Your task to perform on an android device: Search for "logitech g903" on costco, select the first entry, add it to the cart, then select checkout. Image 0: 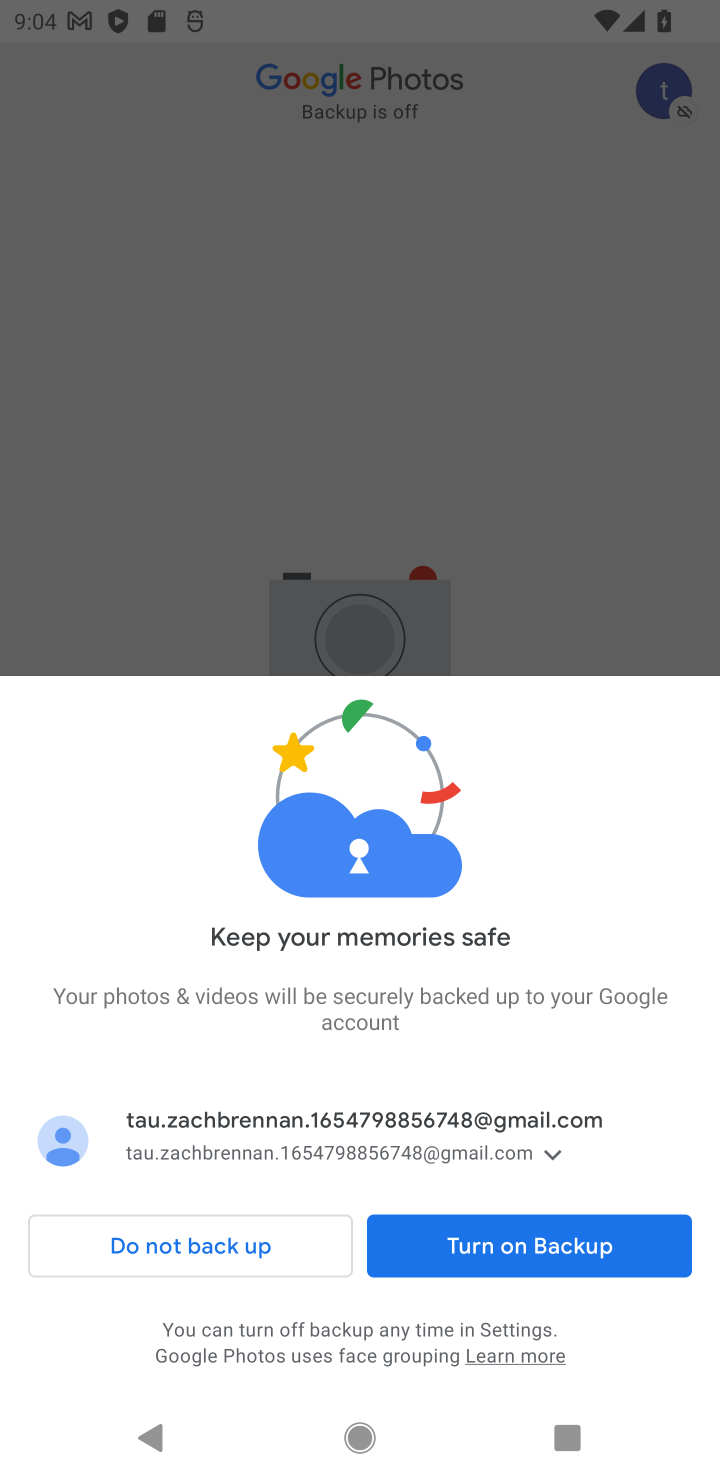
Step 0: press home button
Your task to perform on an android device: Search for "logitech g903" on costco, select the first entry, add it to the cart, then select checkout. Image 1: 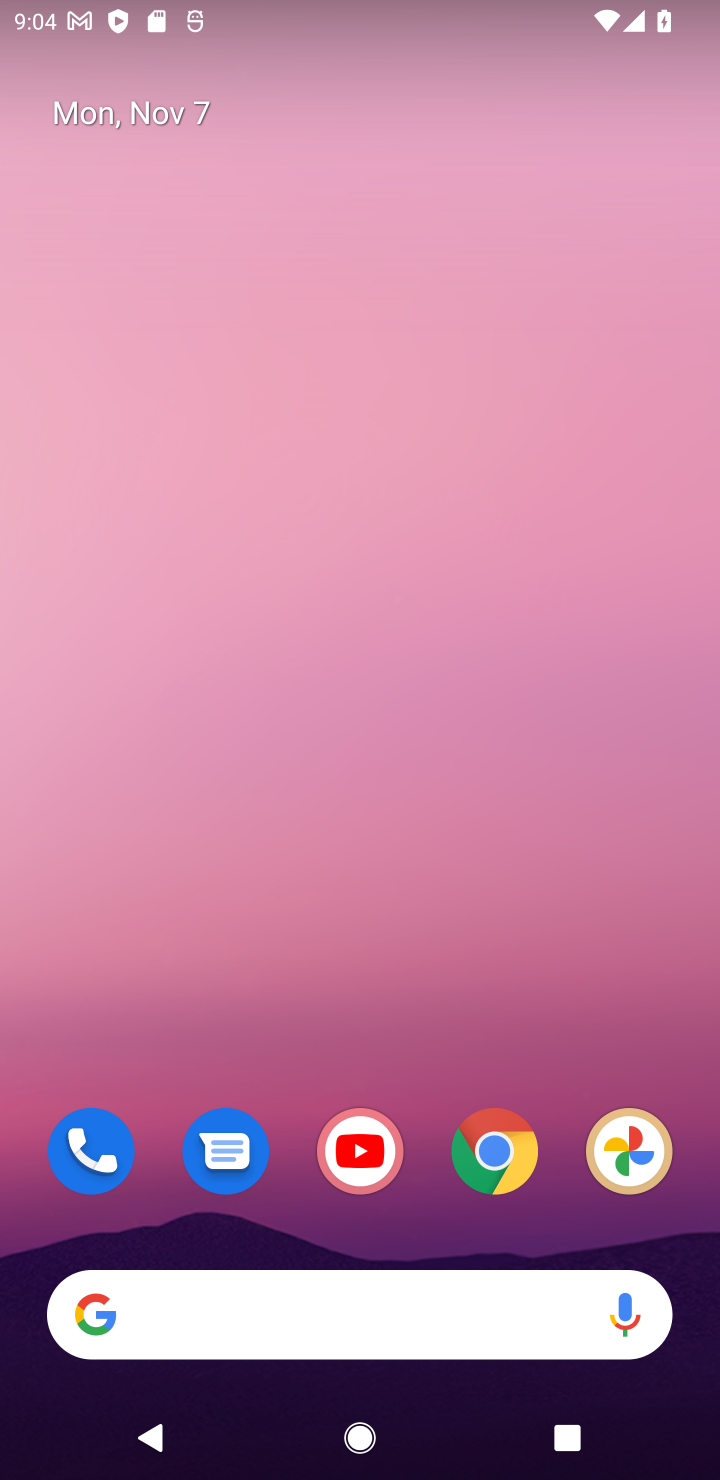
Step 1: click (494, 1149)
Your task to perform on an android device: Search for "logitech g903" on costco, select the first entry, add it to the cart, then select checkout. Image 2: 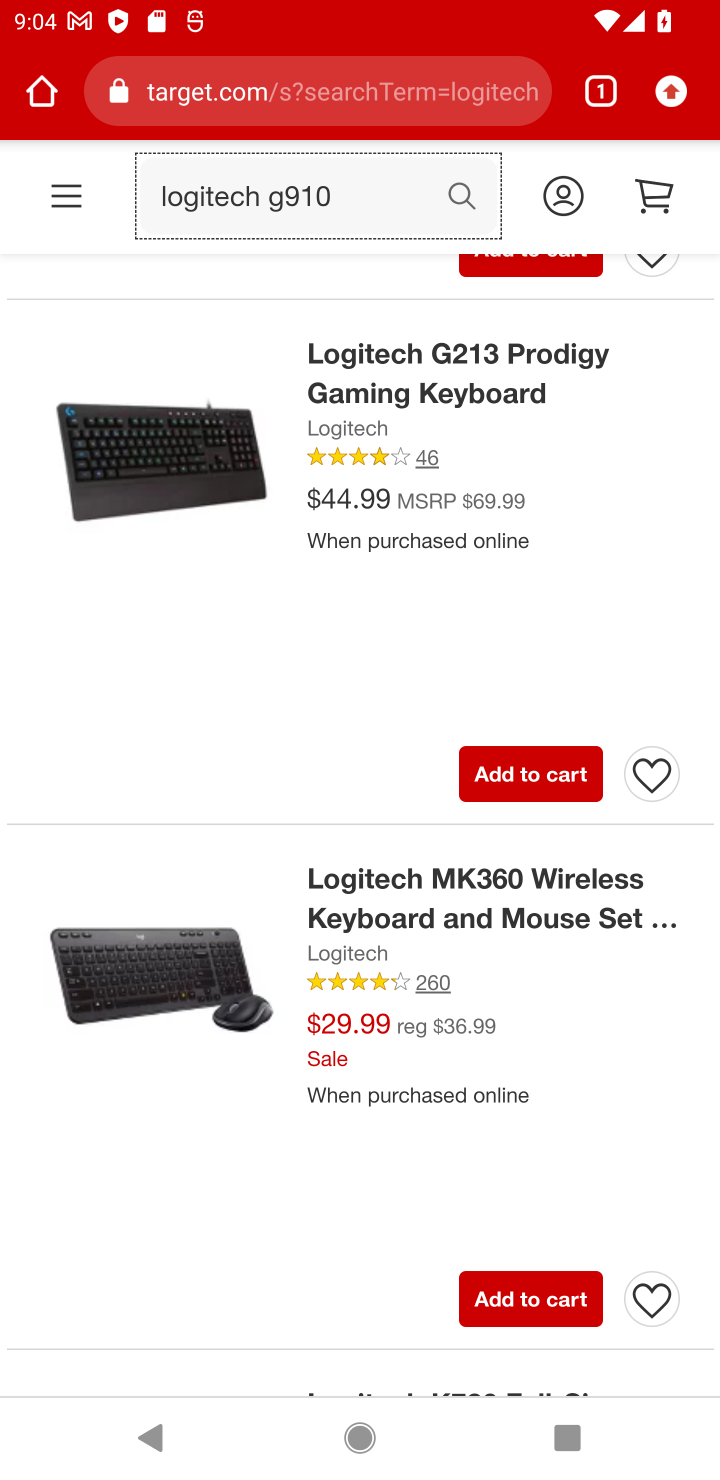
Step 2: click (319, 82)
Your task to perform on an android device: Search for "logitech g903" on costco, select the first entry, add it to the cart, then select checkout. Image 3: 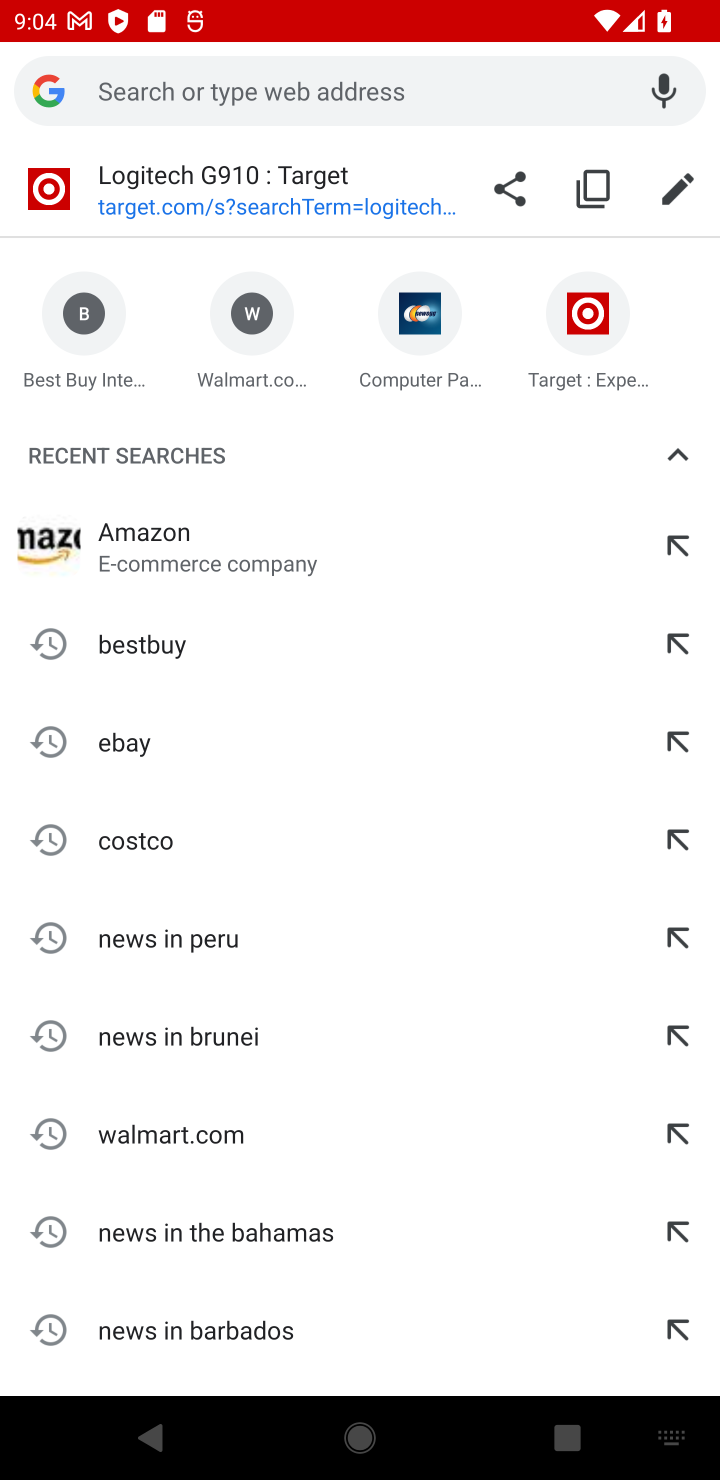
Step 3: click (128, 833)
Your task to perform on an android device: Search for "logitech g903" on costco, select the first entry, add it to the cart, then select checkout. Image 4: 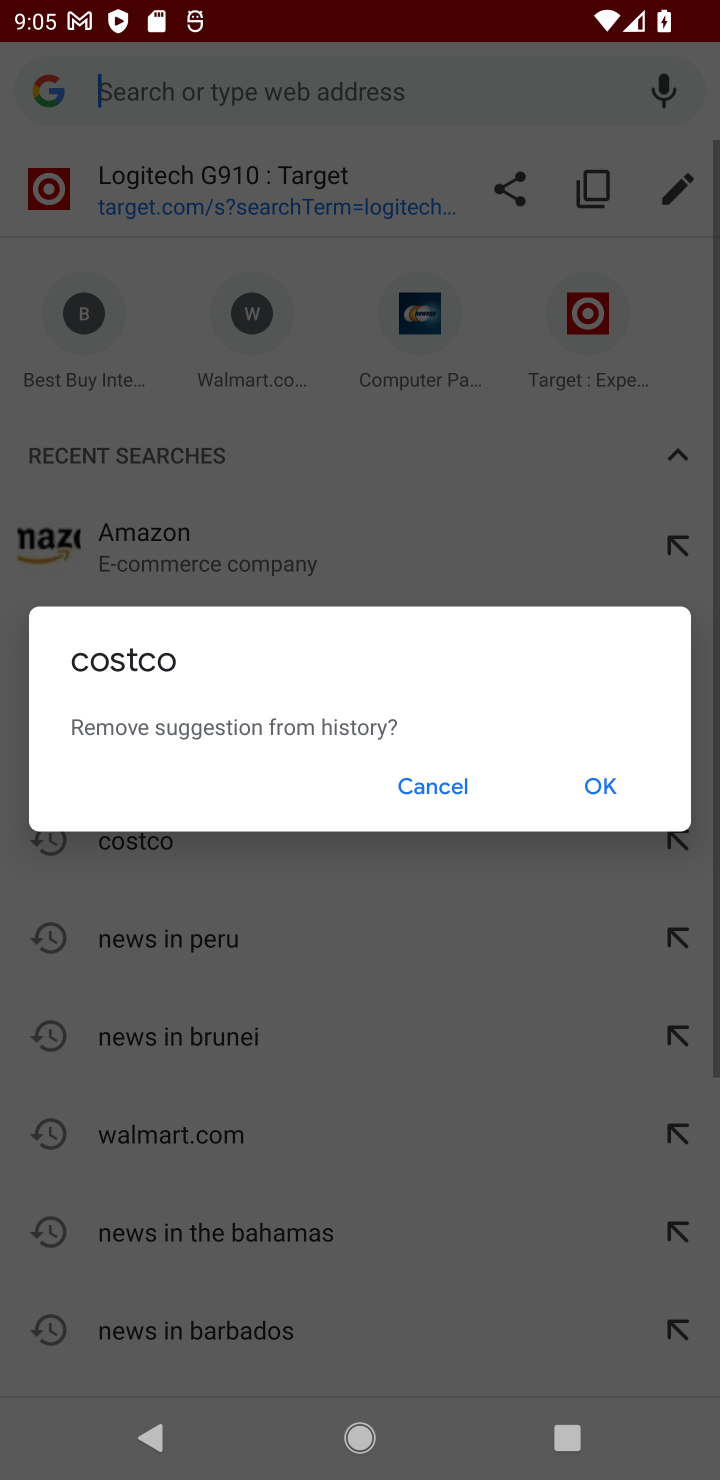
Step 4: click (427, 780)
Your task to perform on an android device: Search for "logitech g903" on costco, select the first entry, add it to the cart, then select checkout. Image 5: 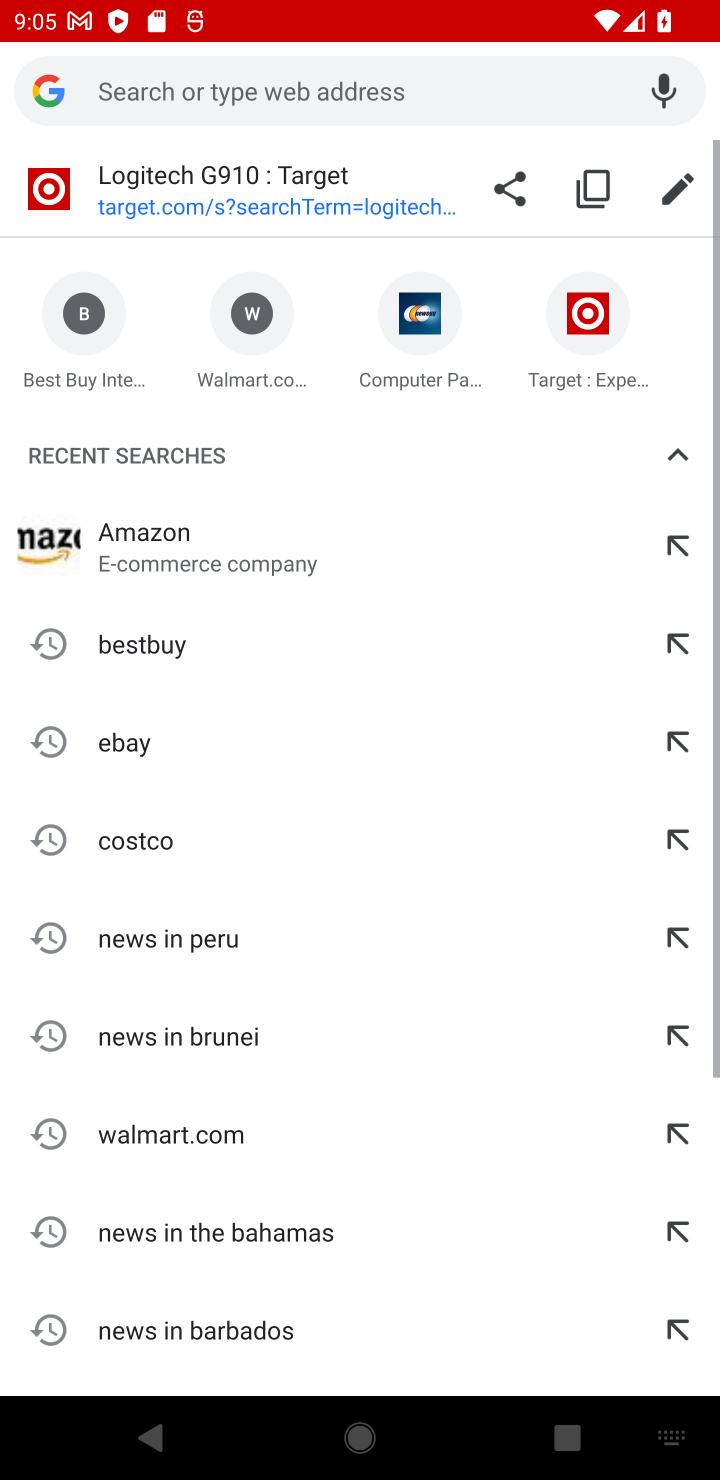
Step 5: click (123, 843)
Your task to perform on an android device: Search for "logitech g903" on costco, select the first entry, add it to the cart, then select checkout. Image 6: 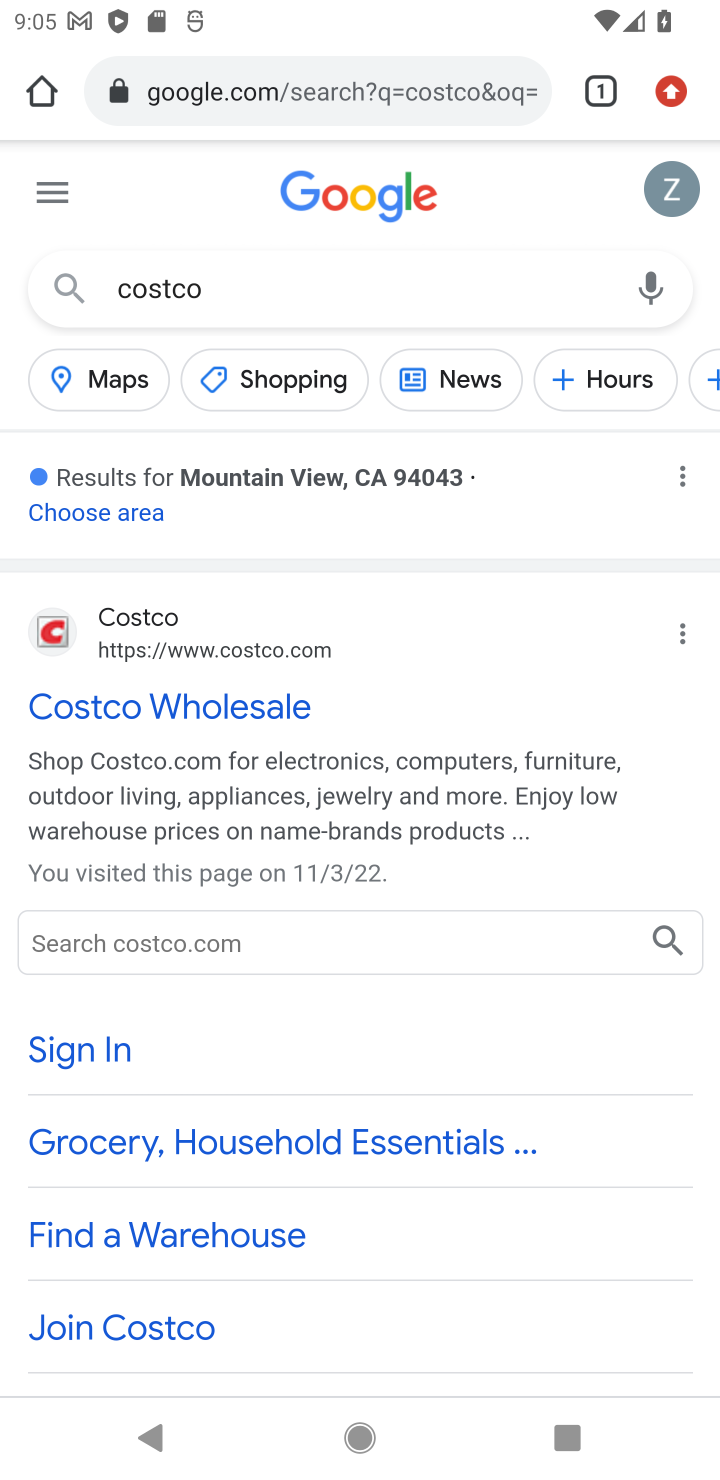
Step 6: click (236, 705)
Your task to perform on an android device: Search for "logitech g903" on costco, select the first entry, add it to the cart, then select checkout. Image 7: 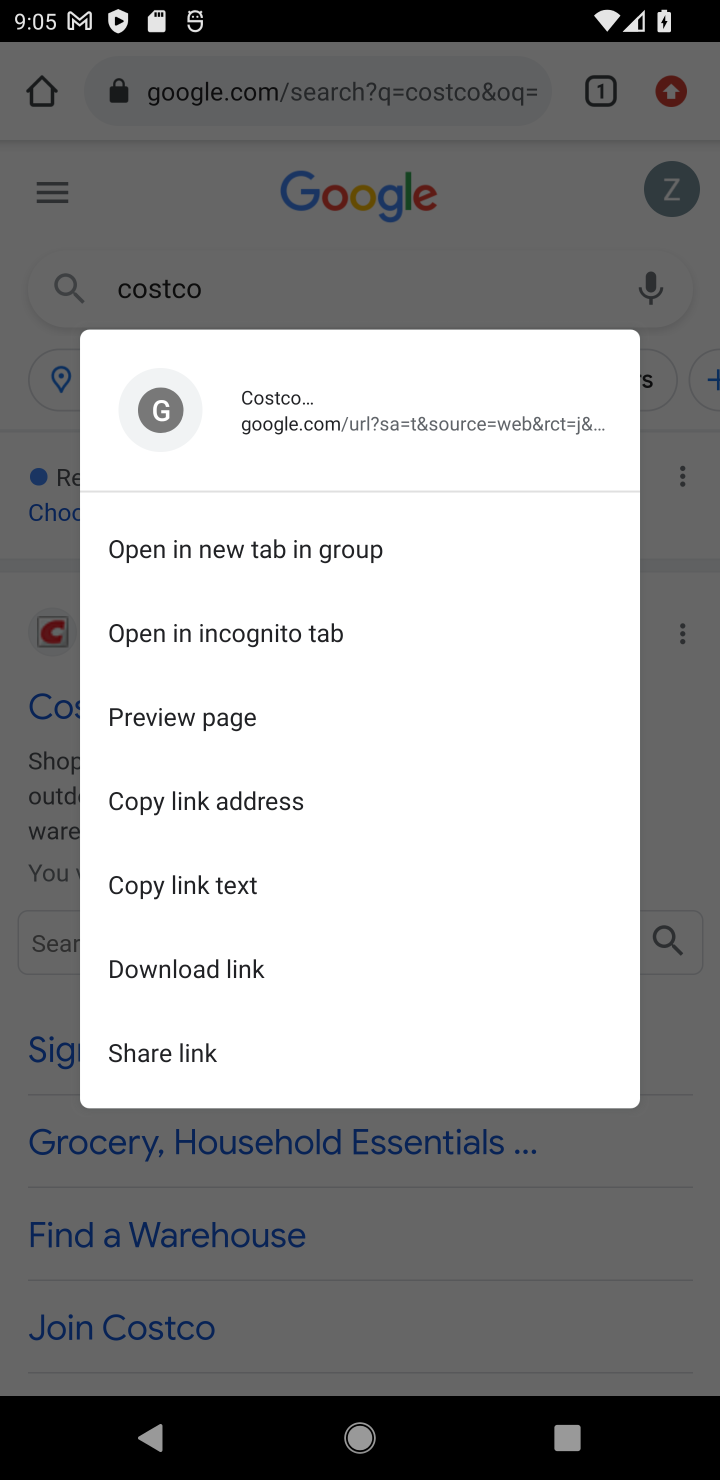
Step 7: click (535, 1255)
Your task to perform on an android device: Search for "logitech g903" on costco, select the first entry, add it to the cart, then select checkout. Image 8: 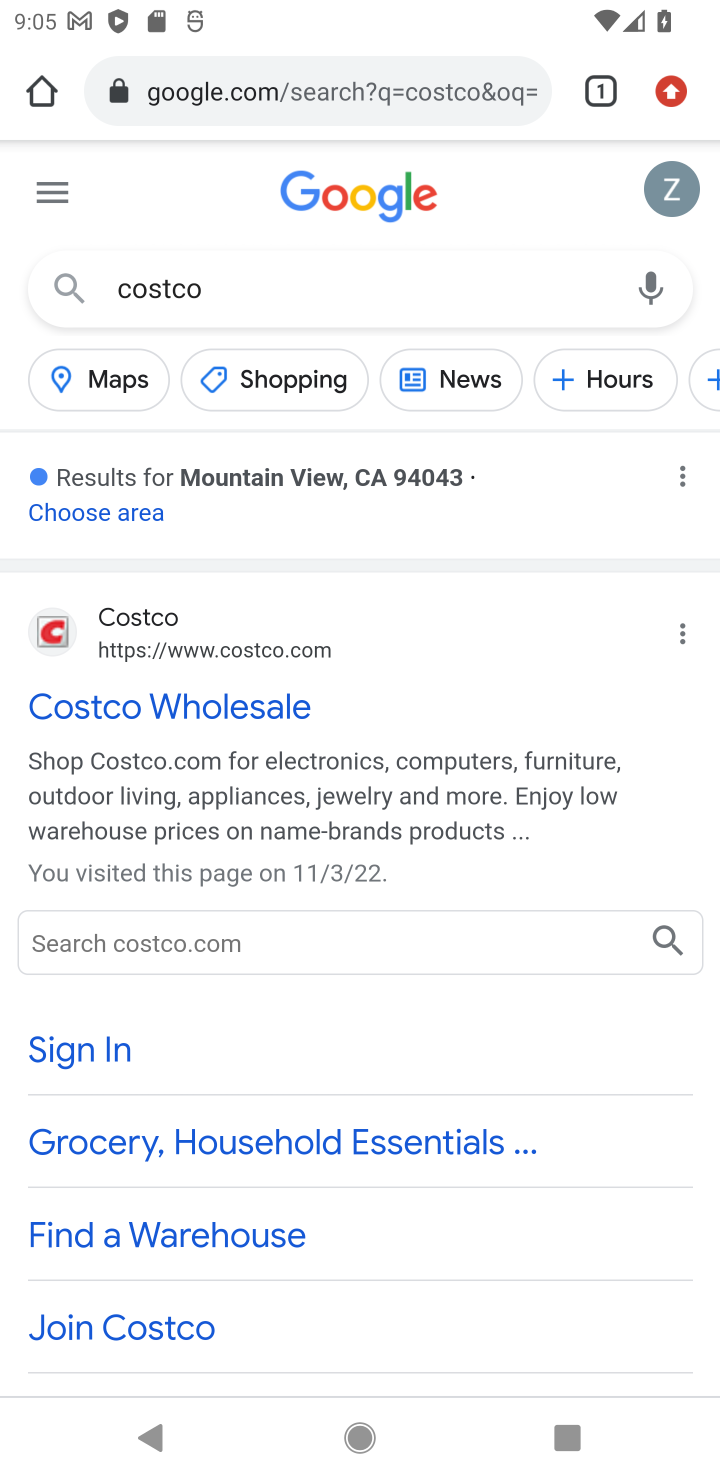
Step 8: click (104, 710)
Your task to perform on an android device: Search for "logitech g903" on costco, select the first entry, add it to the cart, then select checkout. Image 9: 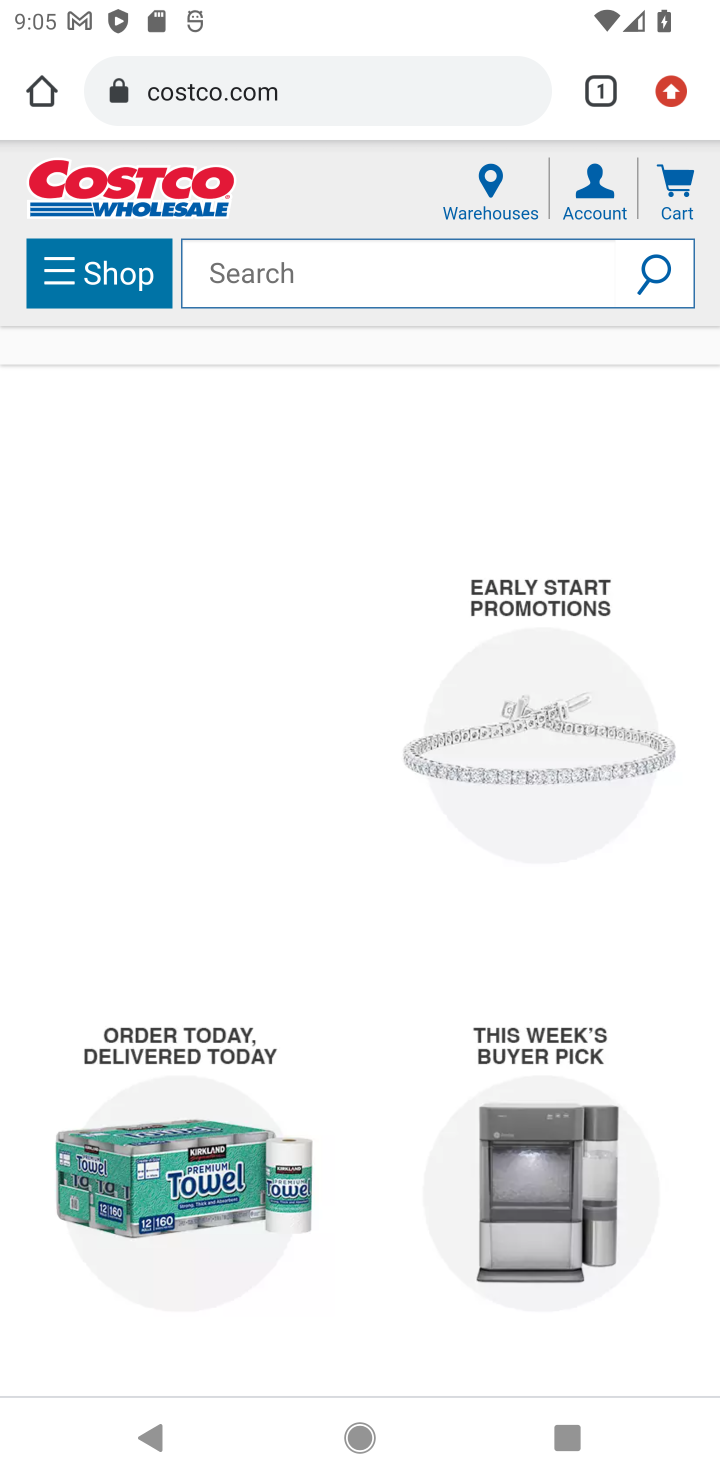
Step 9: click (331, 271)
Your task to perform on an android device: Search for "logitech g903" on costco, select the first entry, add it to the cart, then select checkout. Image 10: 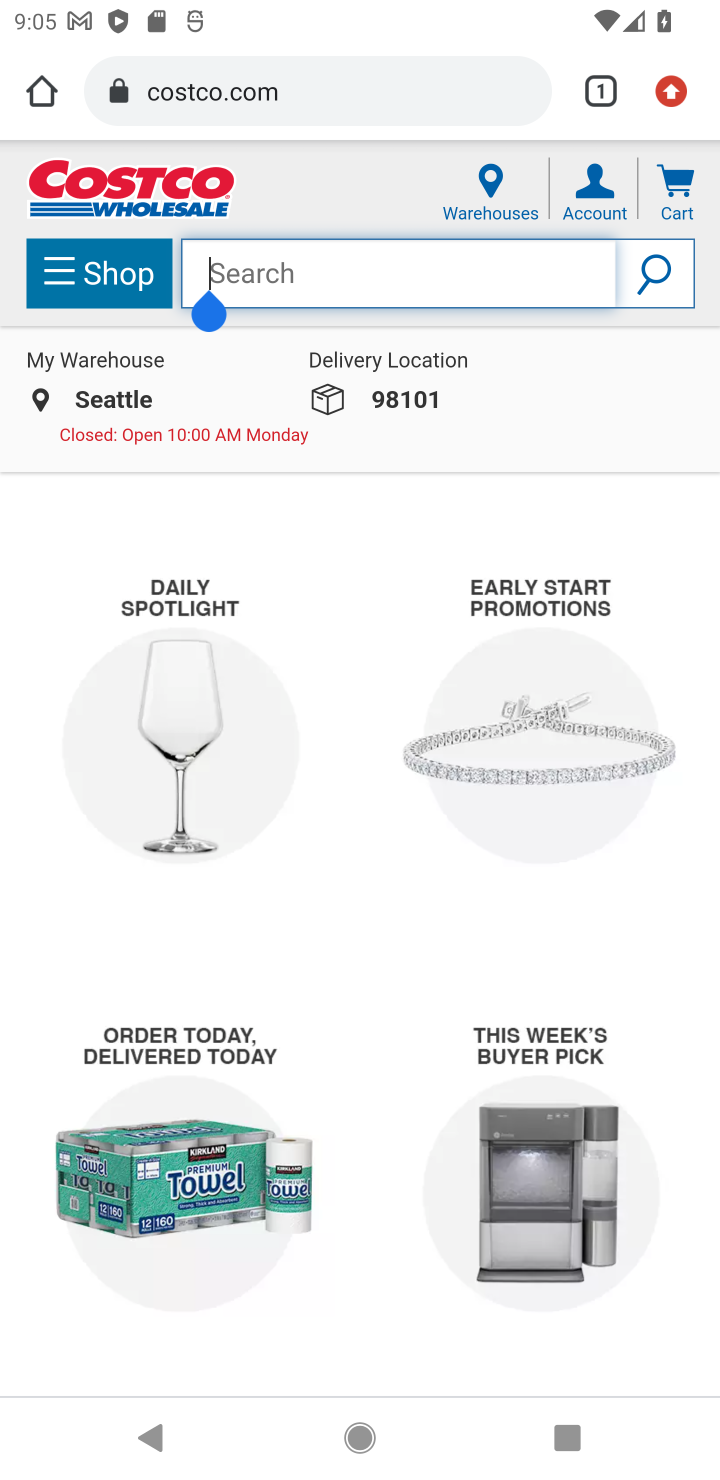
Step 10: press enter
Your task to perform on an android device: Search for "logitech g903" on costco, select the first entry, add it to the cart, then select checkout. Image 11: 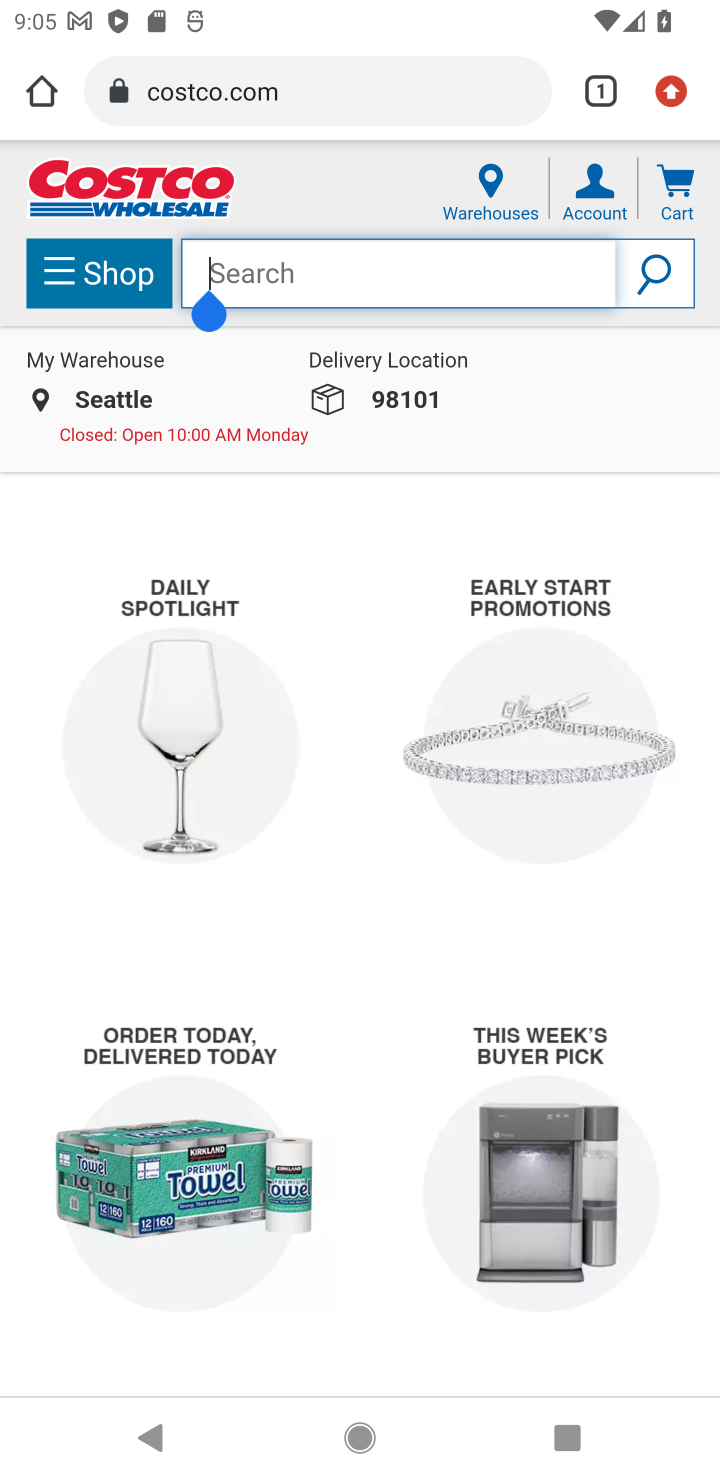
Step 11: type "logitech g903"
Your task to perform on an android device: Search for "logitech g903" on costco, select the first entry, add it to the cart, then select checkout. Image 12: 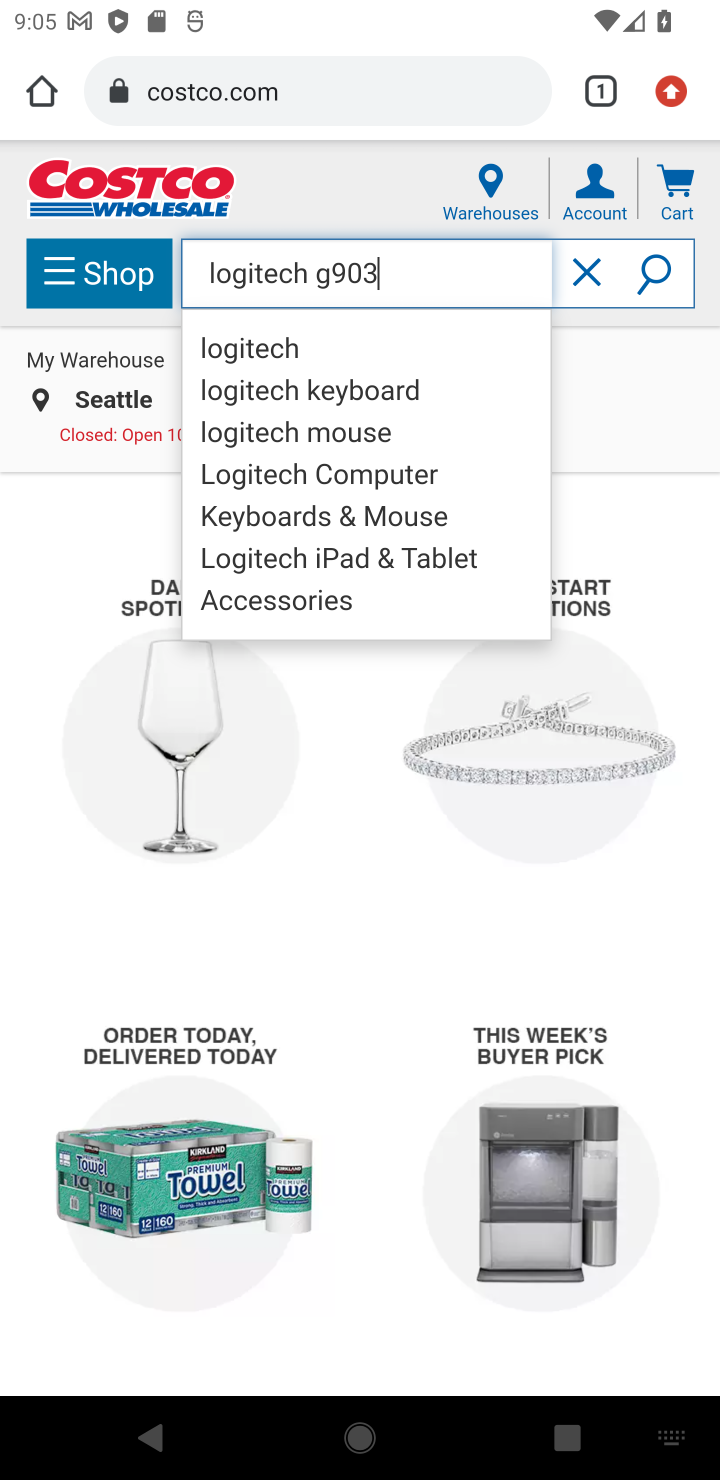
Step 12: press enter
Your task to perform on an android device: Search for "logitech g903" on costco, select the first entry, add it to the cart, then select checkout. Image 13: 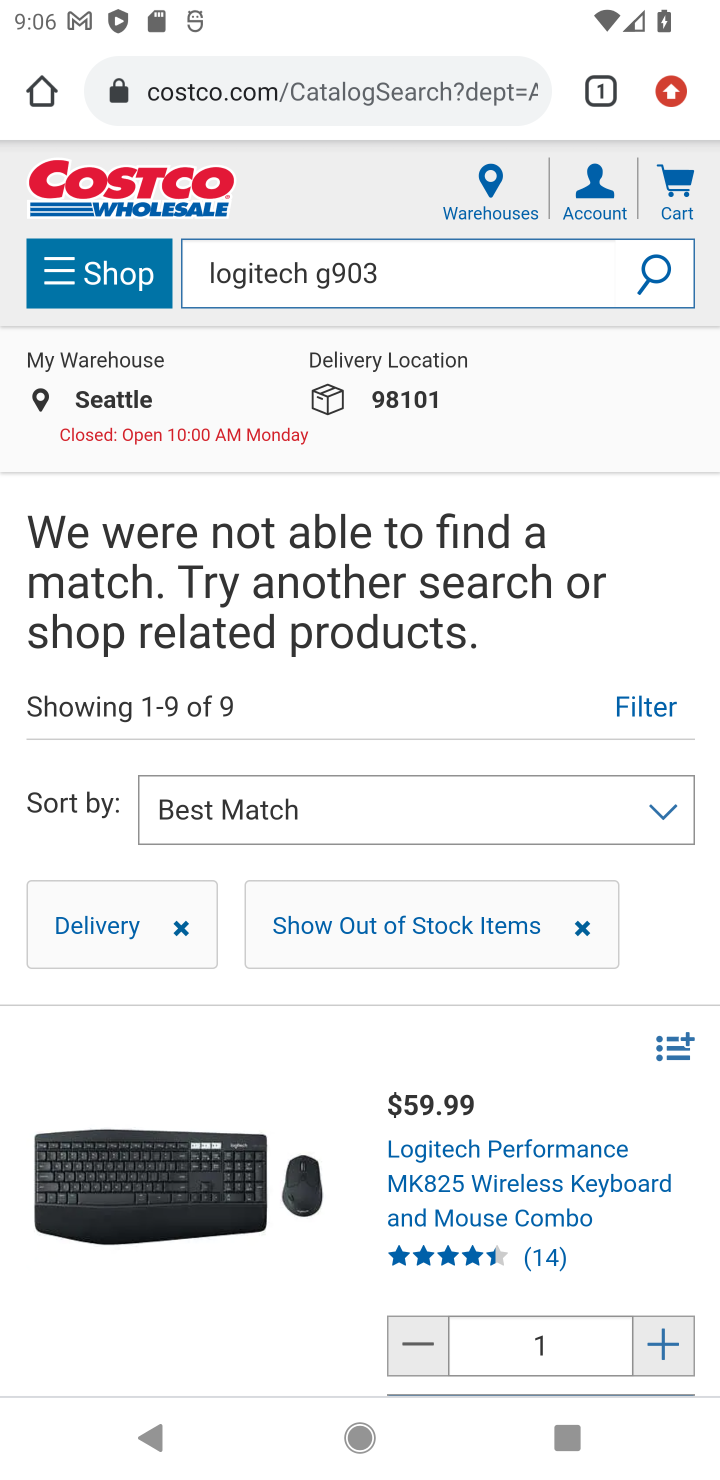
Step 13: drag from (322, 1268) to (426, 597)
Your task to perform on an android device: Search for "logitech g903" on costco, select the first entry, add it to the cart, then select checkout. Image 14: 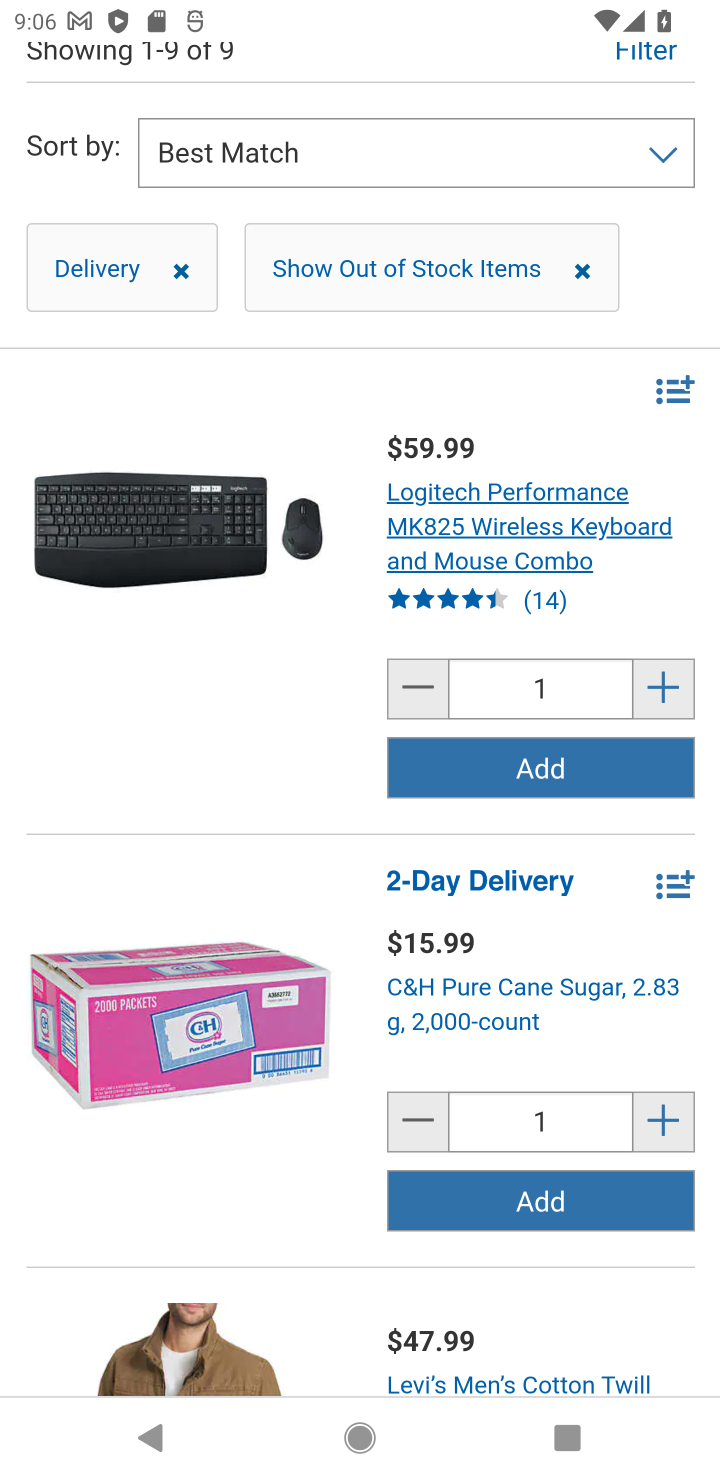
Step 14: drag from (263, 1096) to (332, 413)
Your task to perform on an android device: Search for "logitech g903" on costco, select the first entry, add it to the cart, then select checkout. Image 15: 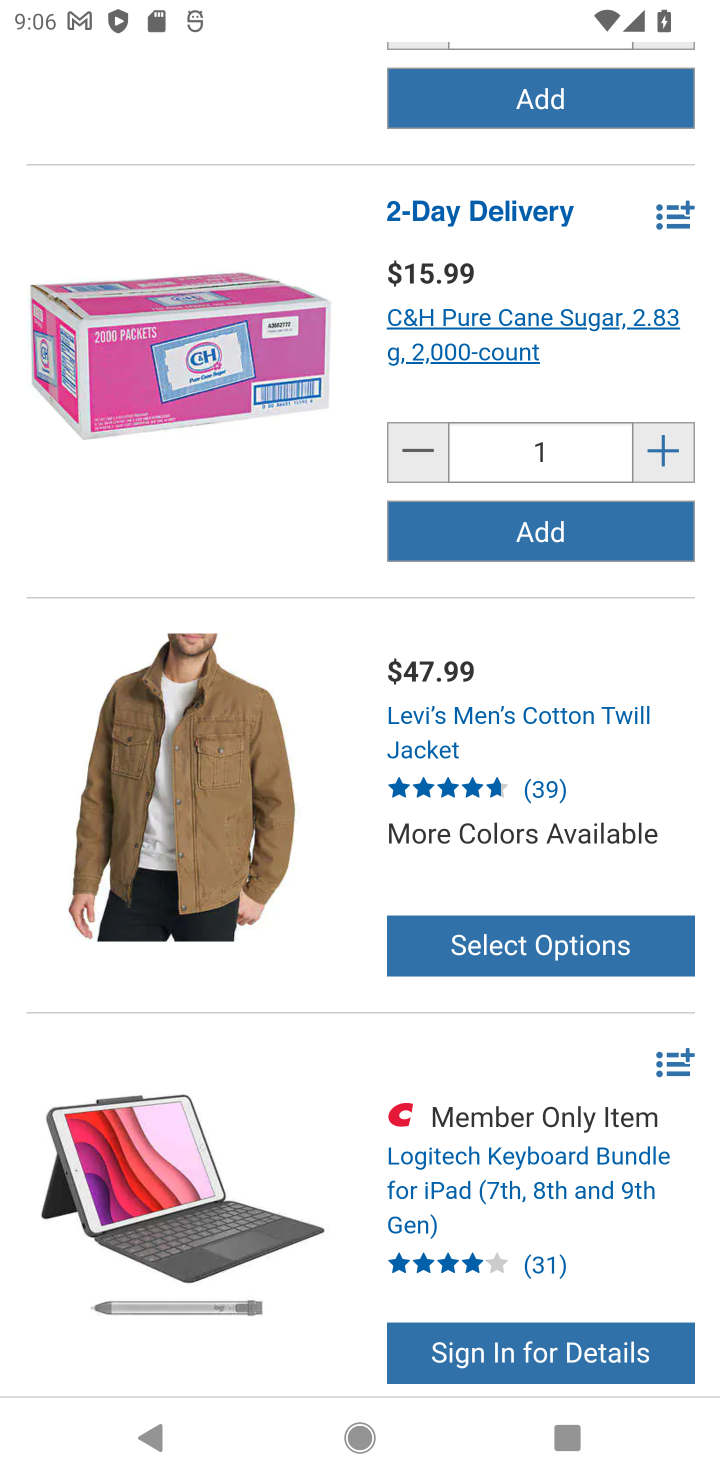
Step 15: drag from (253, 323) to (437, 1286)
Your task to perform on an android device: Search for "logitech g903" on costco, select the first entry, add it to the cart, then select checkout. Image 16: 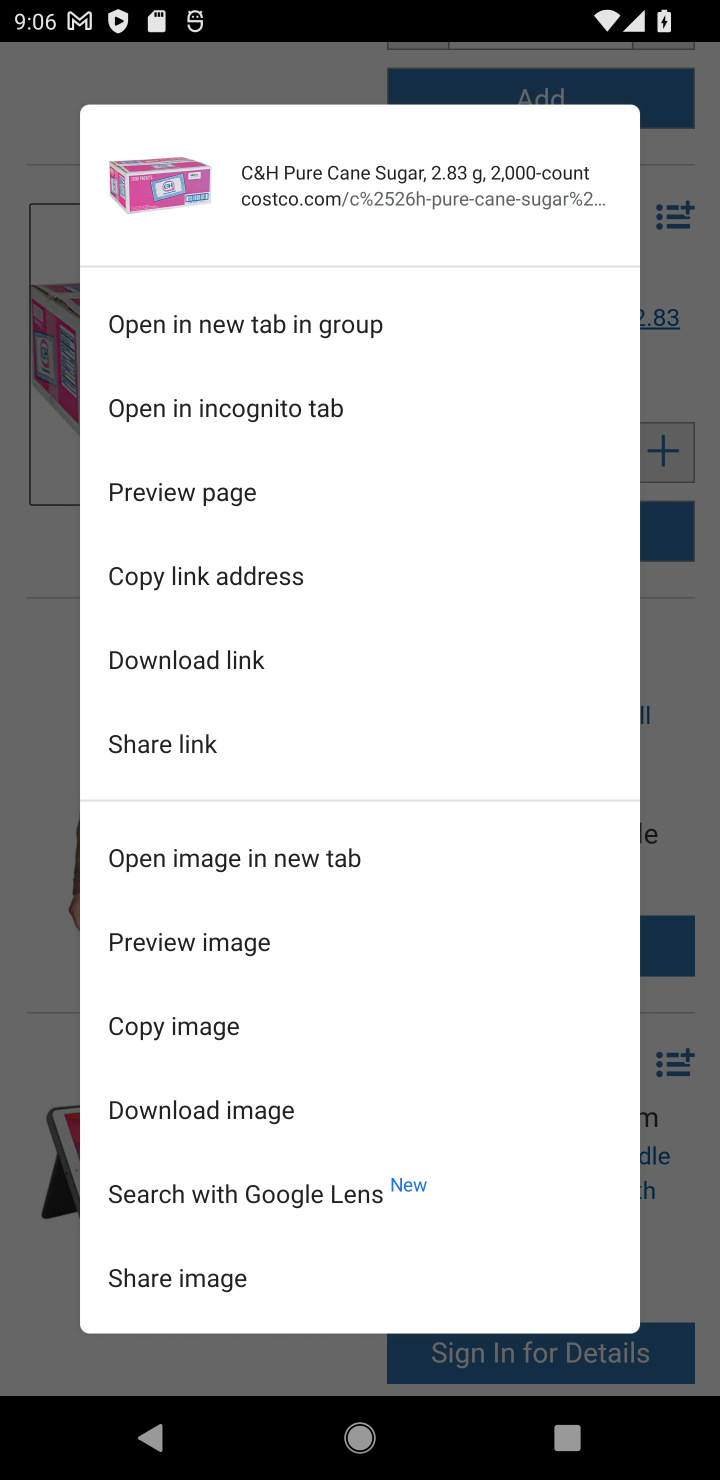
Step 16: click (694, 1144)
Your task to perform on an android device: Search for "logitech g903" on costco, select the first entry, add it to the cart, then select checkout. Image 17: 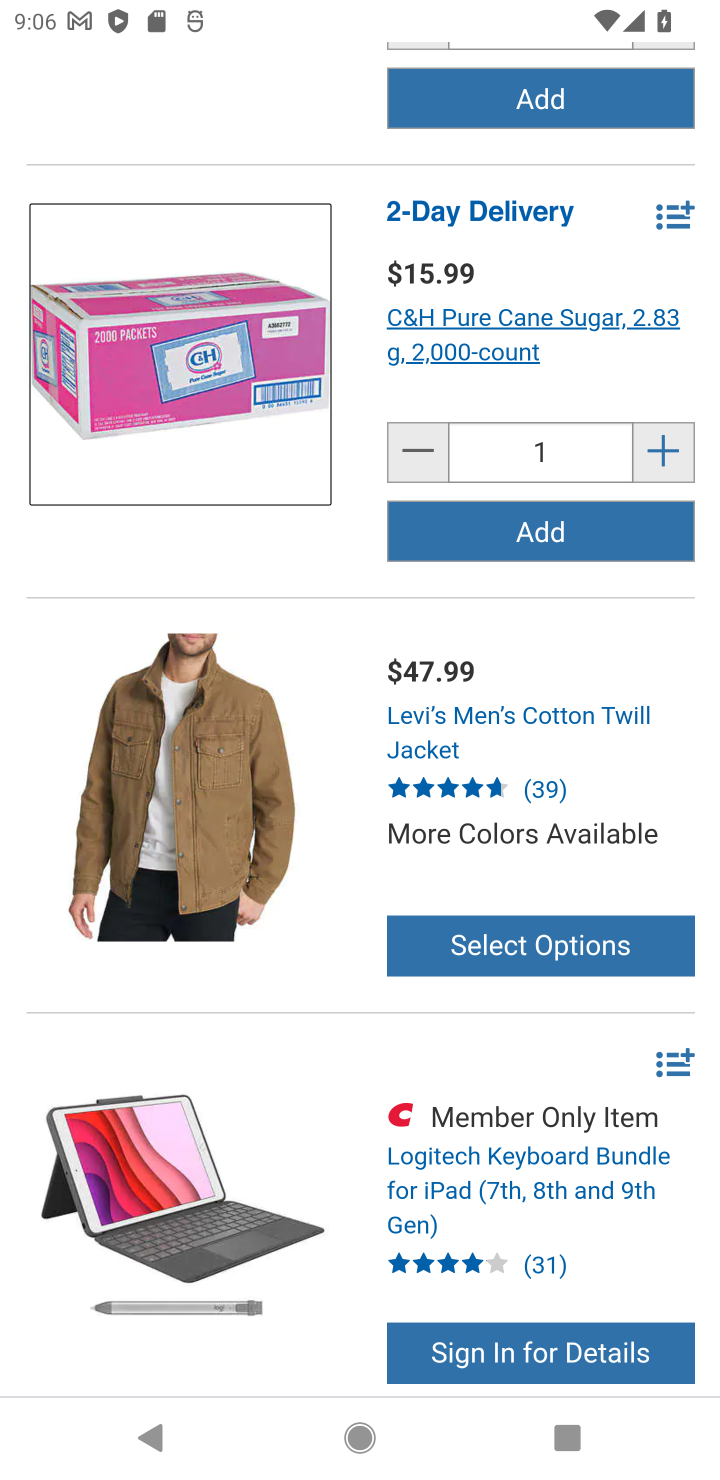
Step 17: task complete